Your task to perform on an android device: clear history in the chrome app Image 0: 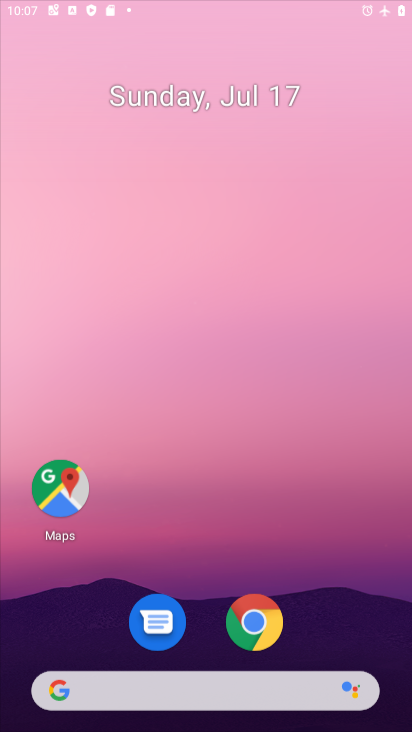
Step 0: click (258, 102)
Your task to perform on an android device: clear history in the chrome app Image 1: 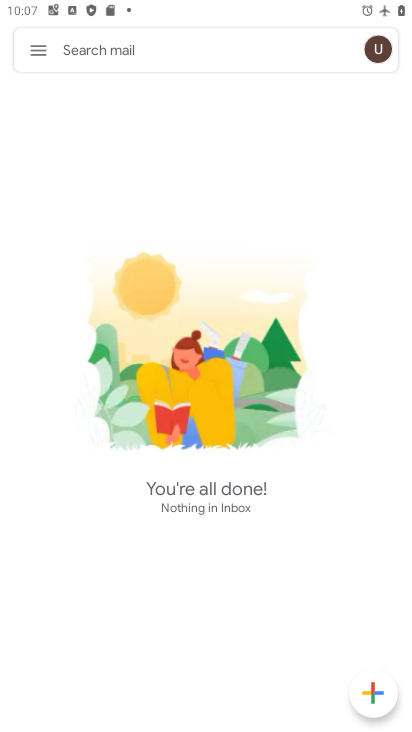
Step 1: press home button
Your task to perform on an android device: clear history in the chrome app Image 2: 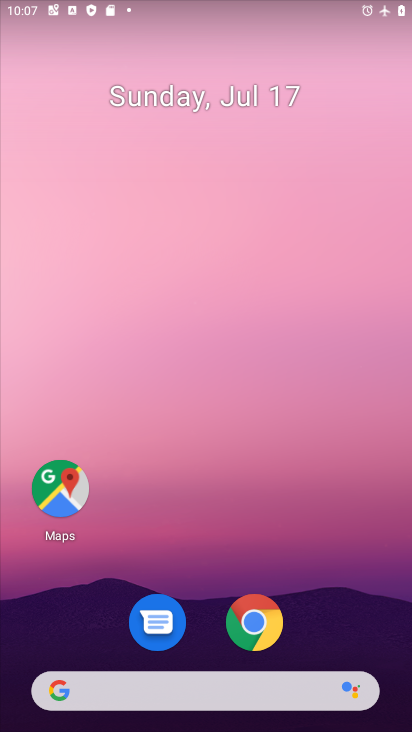
Step 2: click (271, 620)
Your task to perform on an android device: clear history in the chrome app Image 3: 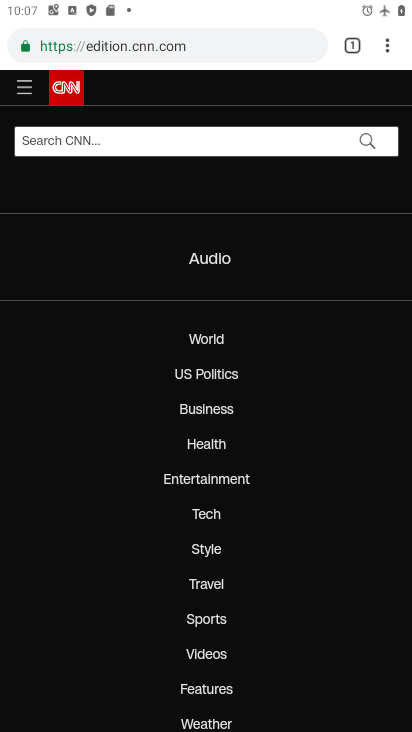
Step 3: click (385, 48)
Your task to perform on an android device: clear history in the chrome app Image 4: 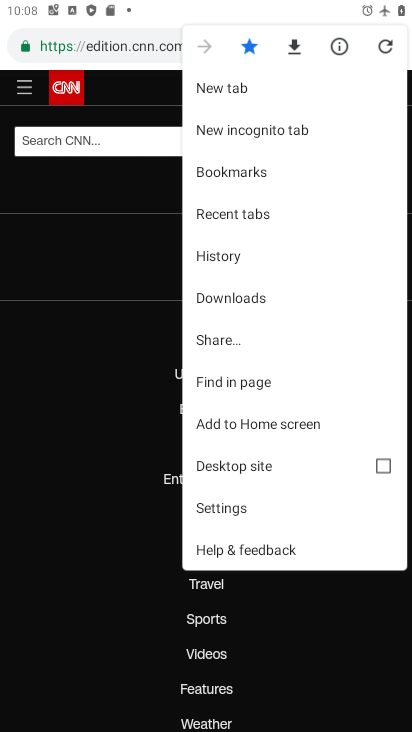
Step 4: click (216, 256)
Your task to perform on an android device: clear history in the chrome app Image 5: 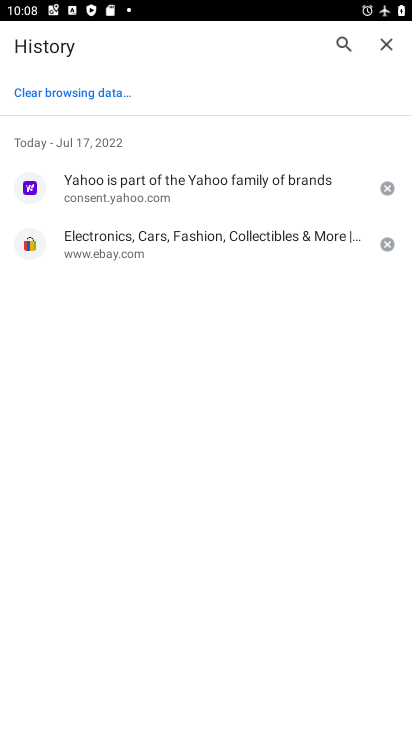
Step 5: click (63, 92)
Your task to perform on an android device: clear history in the chrome app Image 6: 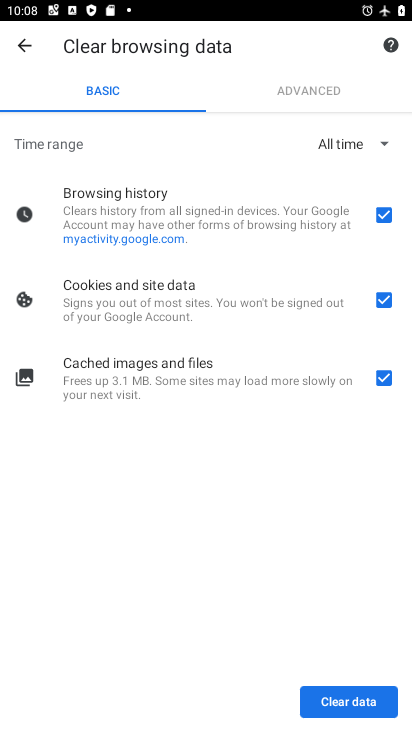
Step 6: click (350, 706)
Your task to perform on an android device: clear history in the chrome app Image 7: 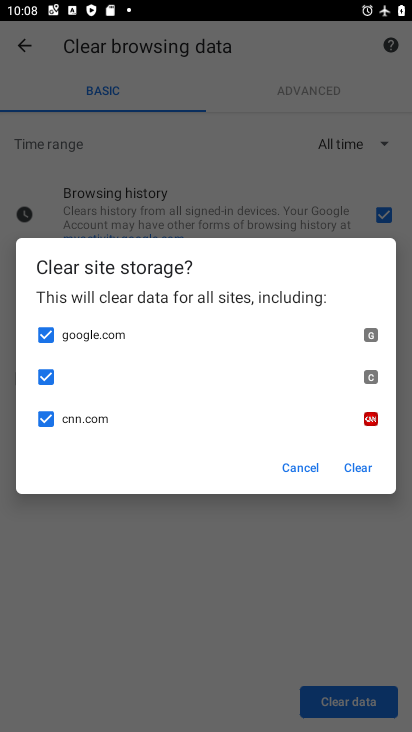
Step 7: click (360, 462)
Your task to perform on an android device: clear history in the chrome app Image 8: 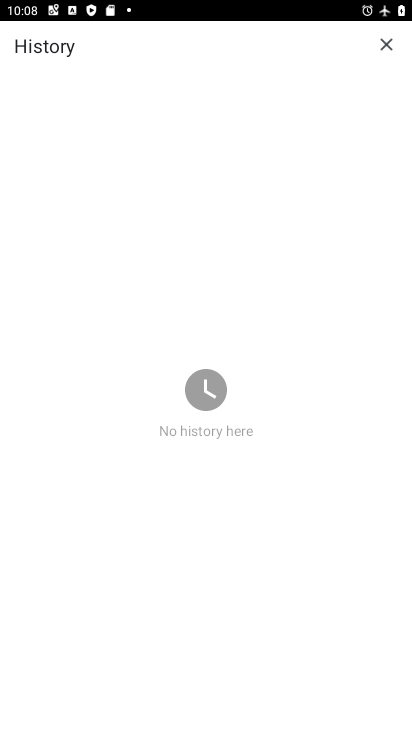
Step 8: task complete